Your task to perform on an android device: change the clock display to analog Image 0: 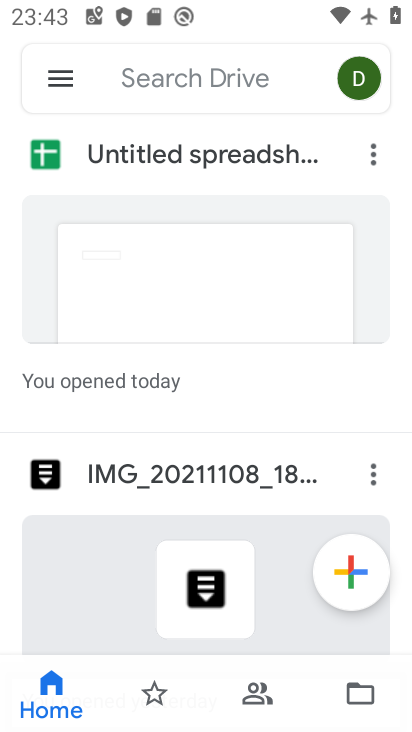
Step 0: press home button
Your task to perform on an android device: change the clock display to analog Image 1: 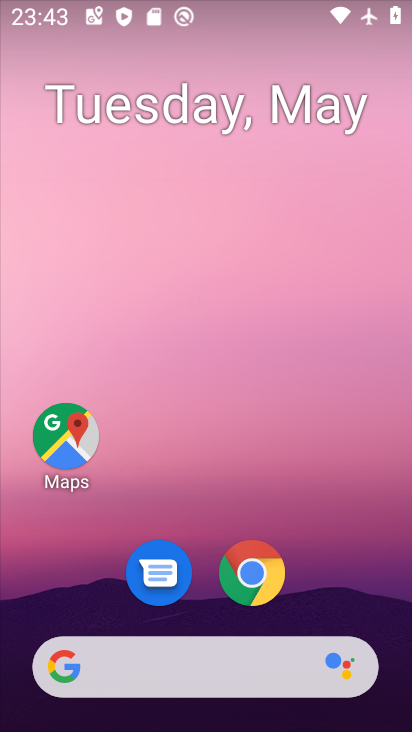
Step 1: drag from (324, 526) to (332, 257)
Your task to perform on an android device: change the clock display to analog Image 2: 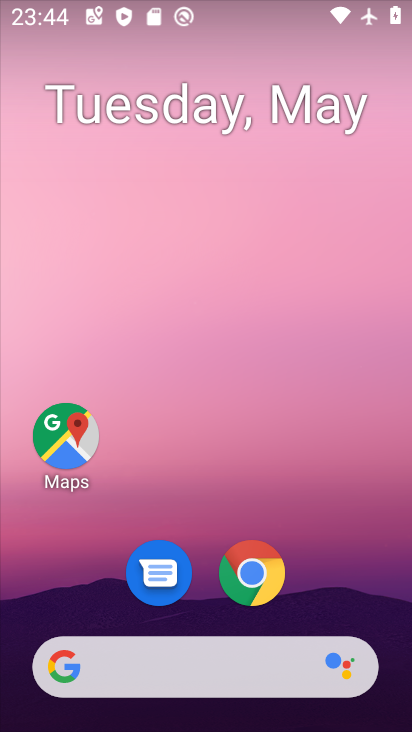
Step 2: drag from (327, 580) to (320, 282)
Your task to perform on an android device: change the clock display to analog Image 3: 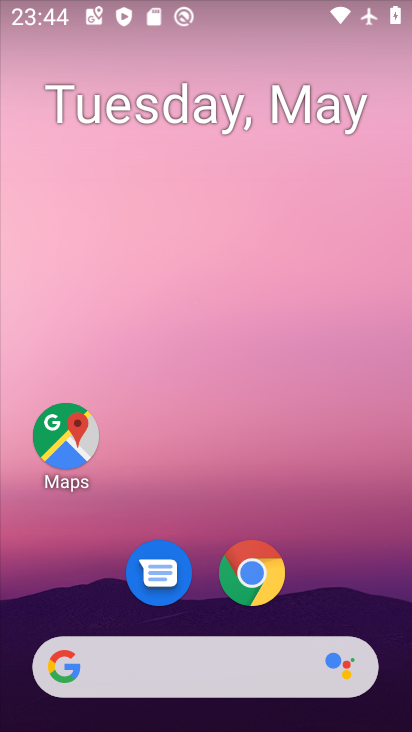
Step 3: drag from (317, 574) to (343, 259)
Your task to perform on an android device: change the clock display to analog Image 4: 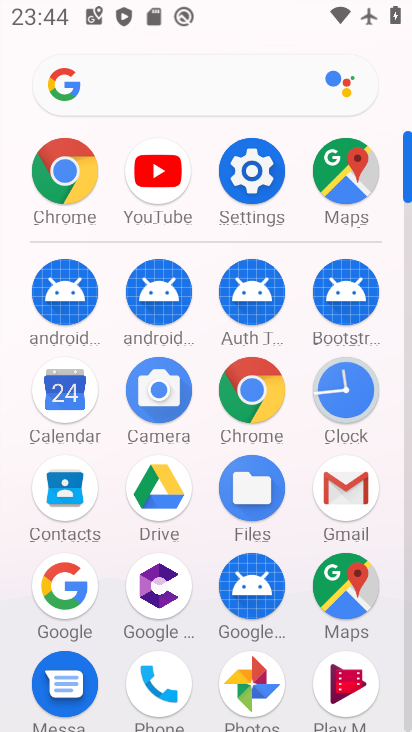
Step 4: click (330, 388)
Your task to perform on an android device: change the clock display to analog Image 5: 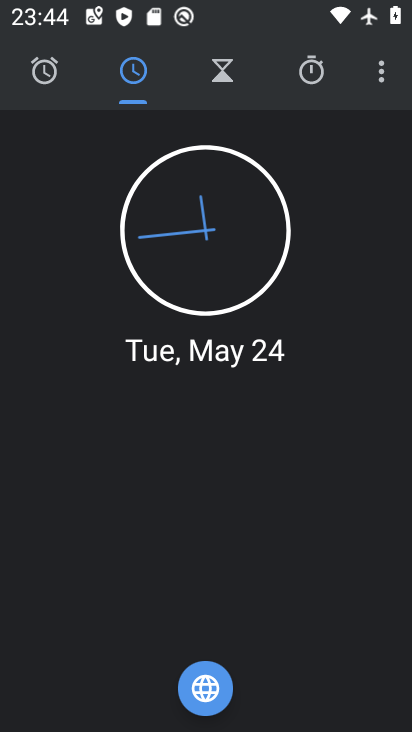
Step 5: click (362, 80)
Your task to perform on an android device: change the clock display to analog Image 6: 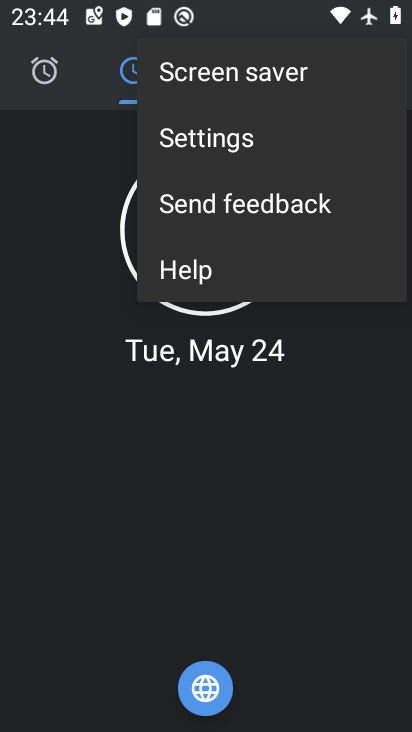
Step 6: click (209, 125)
Your task to perform on an android device: change the clock display to analog Image 7: 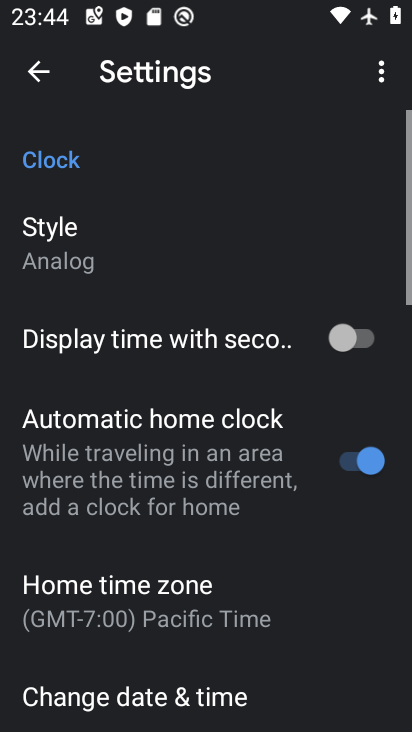
Step 7: click (116, 241)
Your task to perform on an android device: change the clock display to analog Image 8: 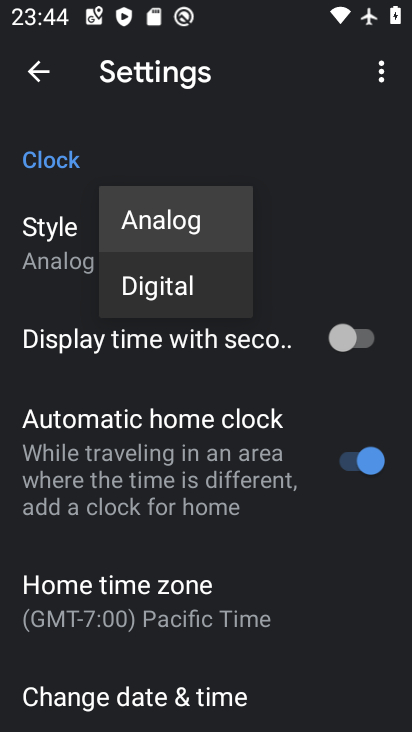
Step 8: click (160, 290)
Your task to perform on an android device: change the clock display to analog Image 9: 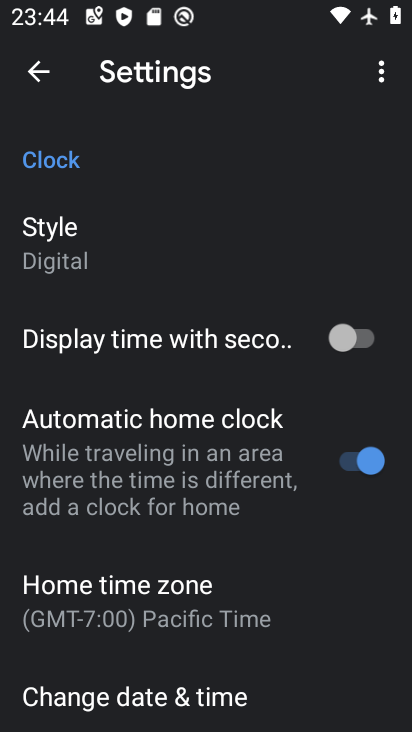
Step 9: task complete